Your task to perform on an android device: turn on sleep mode Image 0: 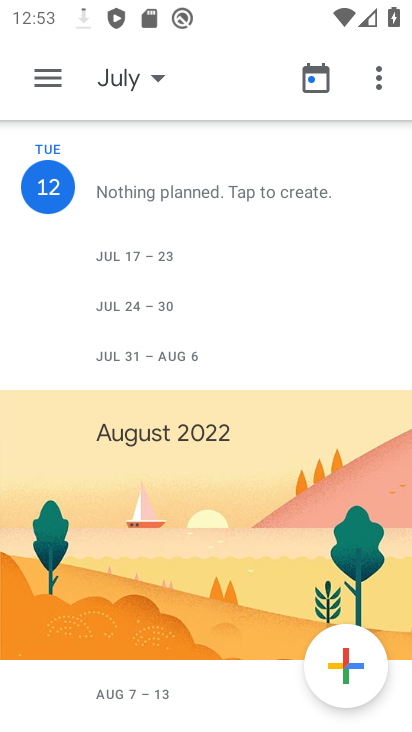
Step 0: press home button
Your task to perform on an android device: turn on sleep mode Image 1: 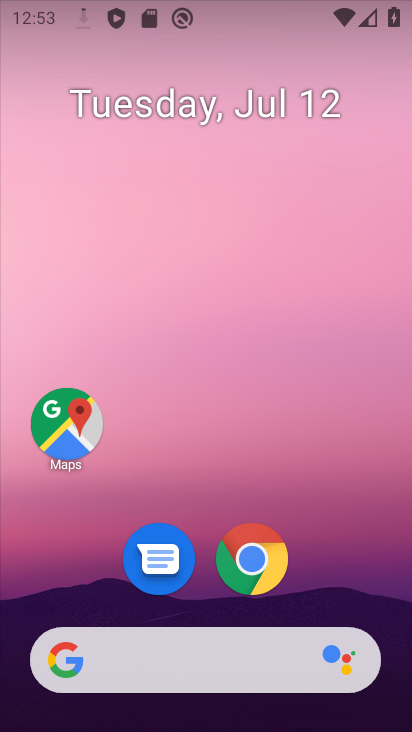
Step 1: drag from (352, 599) to (340, 136)
Your task to perform on an android device: turn on sleep mode Image 2: 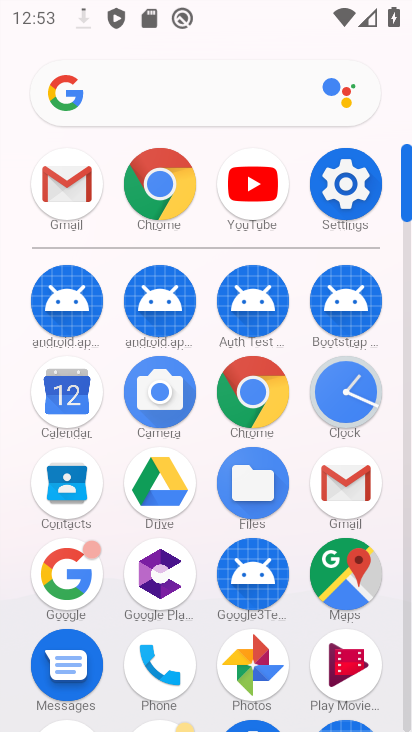
Step 2: click (343, 191)
Your task to perform on an android device: turn on sleep mode Image 3: 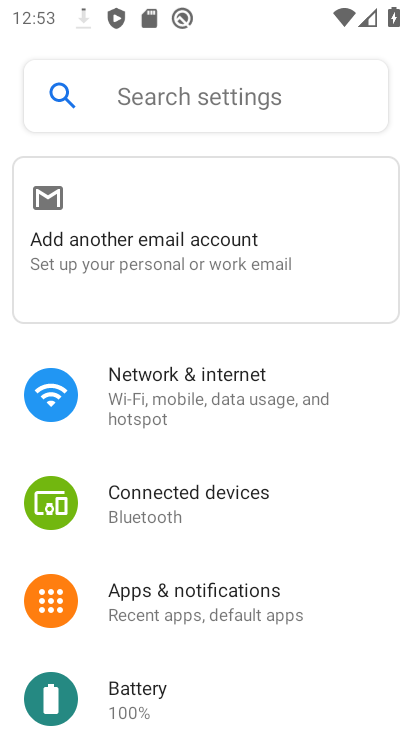
Step 3: drag from (367, 528) to (364, 416)
Your task to perform on an android device: turn on sleep mode Image 4: 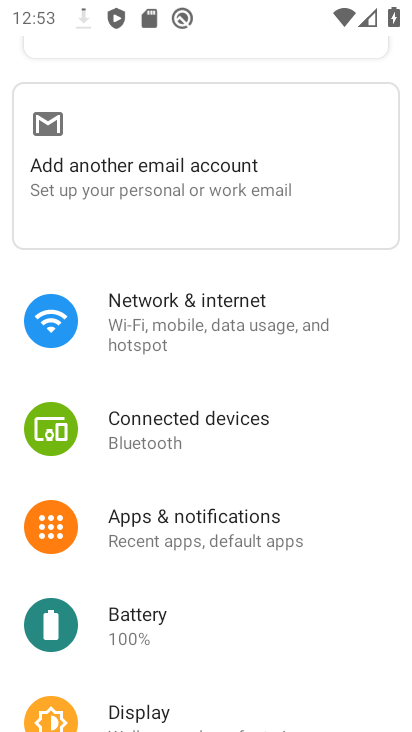
Step 4: drag from (363, 501) to (360, 416)
Your task to perform on an android device: turn on sleep mode Image 5: 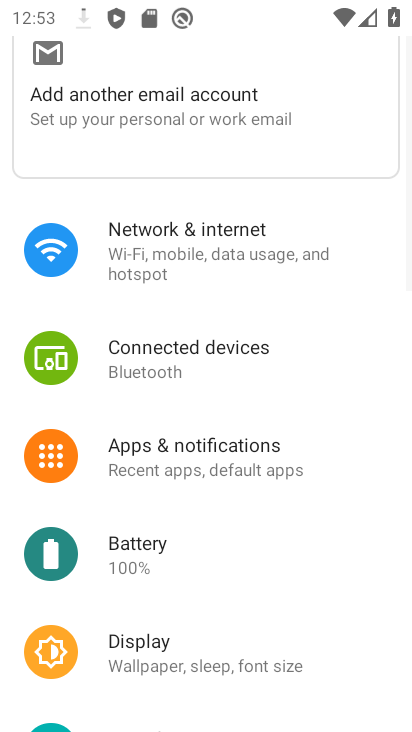
Step 5: drag from (342, 503) to (345, 405)
Your task to perform on an android device: turn on sleep mode Image 6: 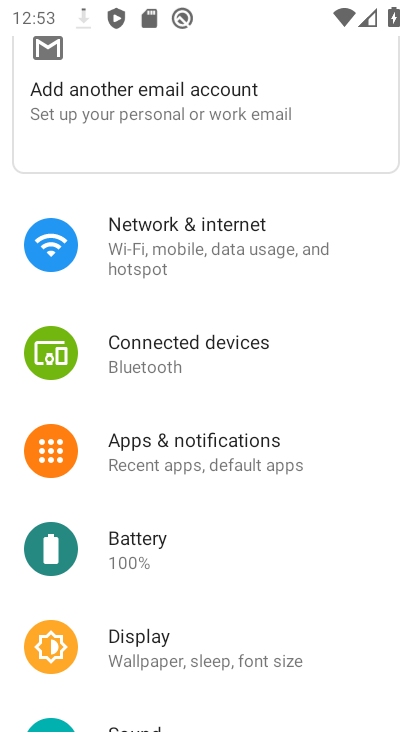
Step 6: drag from (345, 499) to (342, 387)
Your task to perform on an android device: turn on sleep mode Image 7: 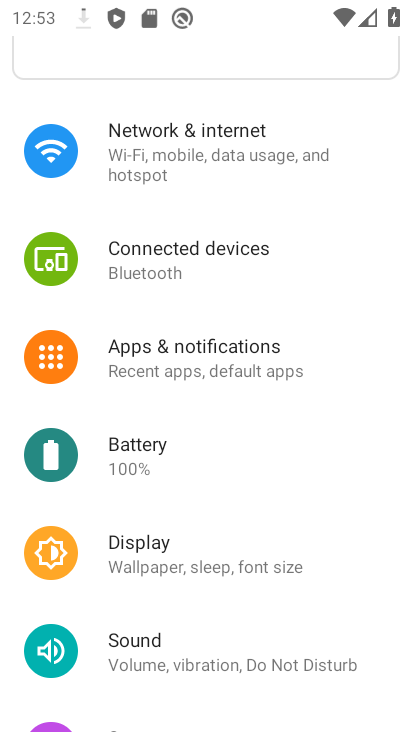
Step 7: drag from (337, 491) to (334, 380)
Your task to perform on an android device: turn on sleep mode Image 8: 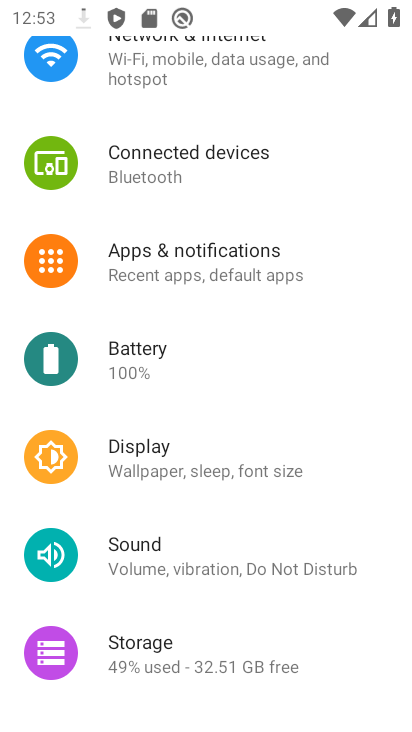
Step 8: drag from (352, 495) to (354, 348)
Your task to perform on an android device: turn on sleep mode Image 9: 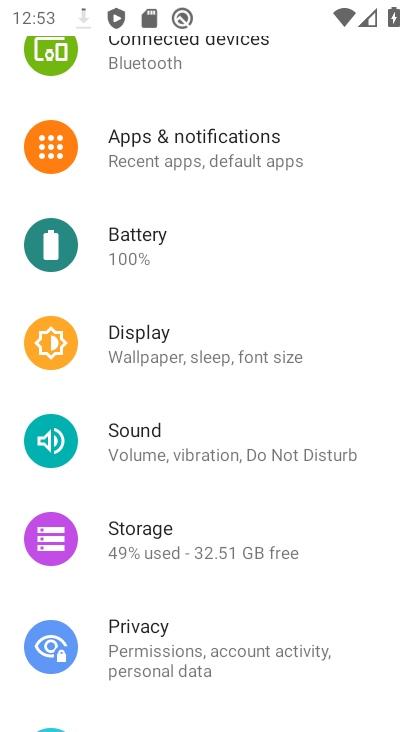
Step 9: drag from (365, 548) to (381, 404)
Your task to perform on an android device: turn on sleep mode Image 10: 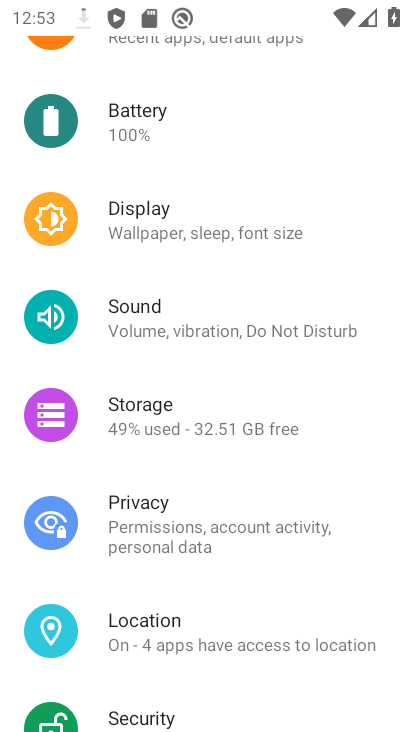
Step 10: drag from (365, 515) to (363, 426)
Your task to perform on an android device: turn on sleep mode Image 11: 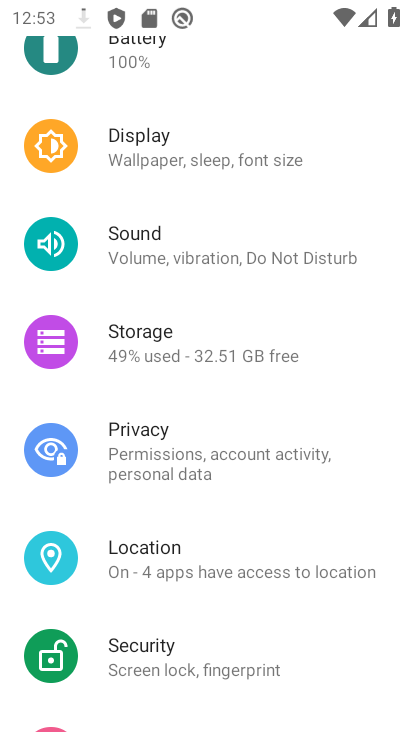
Step 11: drag from (367, 200) to (364, 395)
Your task to perform on an android device: turn on sleep mode Image 12: 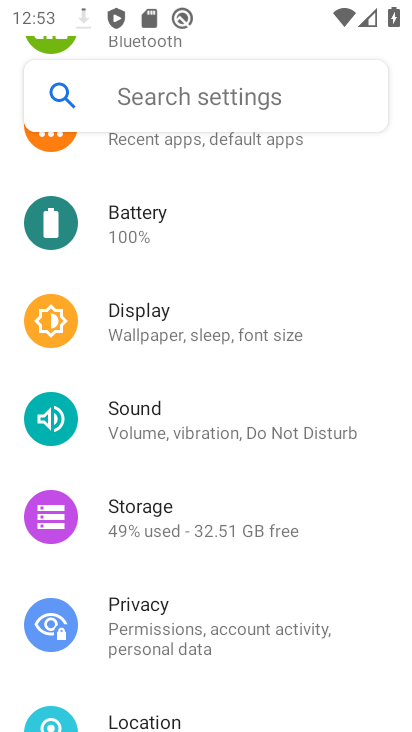
Step 12: drag from (354, 274) to (348, 464)
Your task to perform on an android device: turn on sleep mode Image 13: 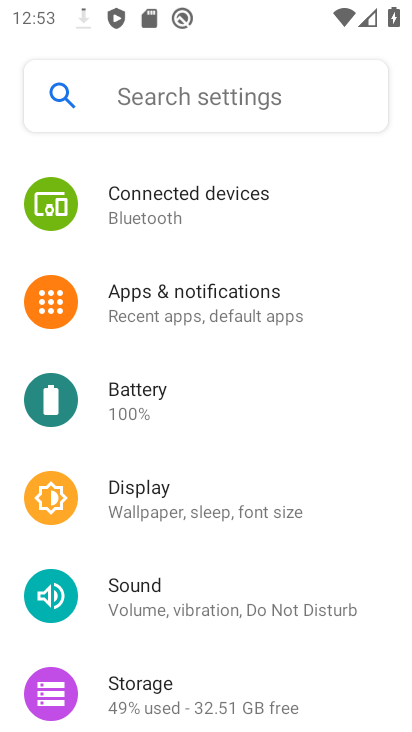
Step 13: click (295, 513)
Your task to perform on an android device: turn on sleep mode Image 14: 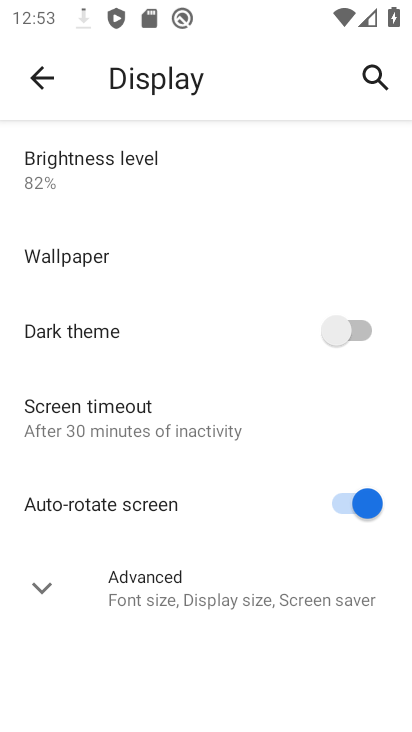
Step 14: click (195, 601)
Your task to perform on an android device: turn on sleep mode Image 15: 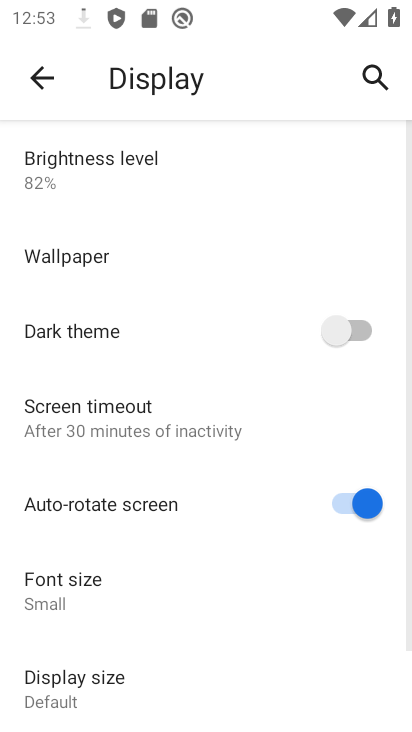
Step 15: task complete